Your task to perform on an android device: Go to calendar. Show me events next week Image 0: 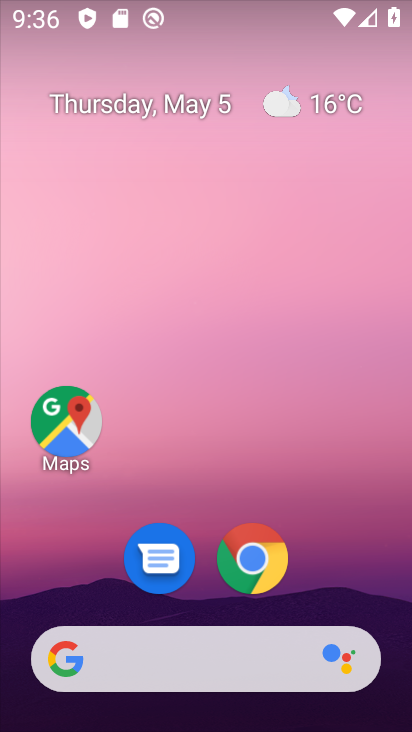
Step 0: drag from (364, 580) to (334, 15)
Your task to perform on an android device: Go to calendar. Show me events next week Image 1: 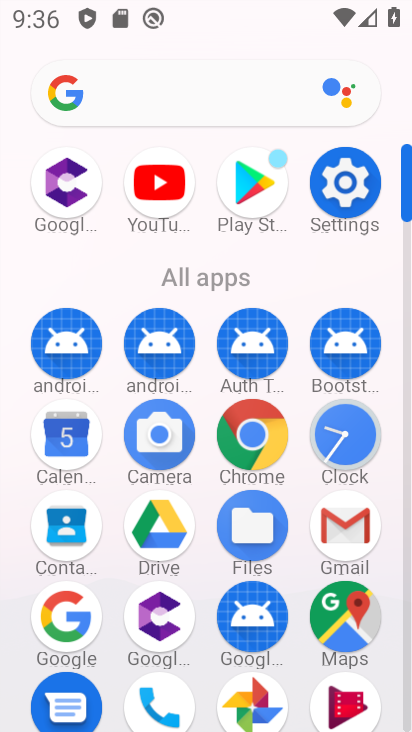
Step 1: click (80, 433)
Your task to perform on an android device: Go to calendar. Show me events next week Image 2: 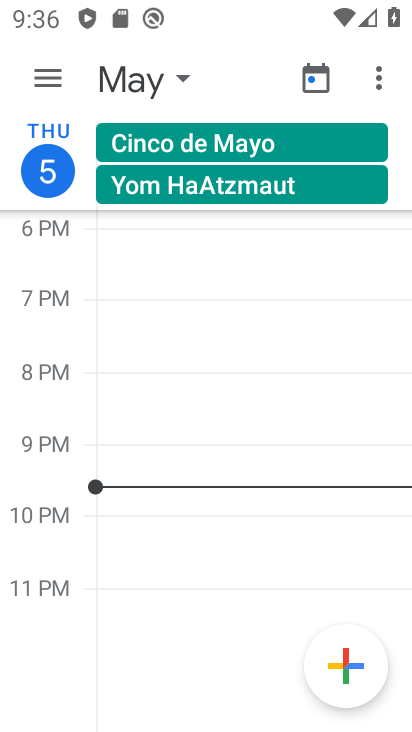
Step 2: click (40, 82)
Your task to perform on an android device: Go to calendar. Show me events next week Image 3: 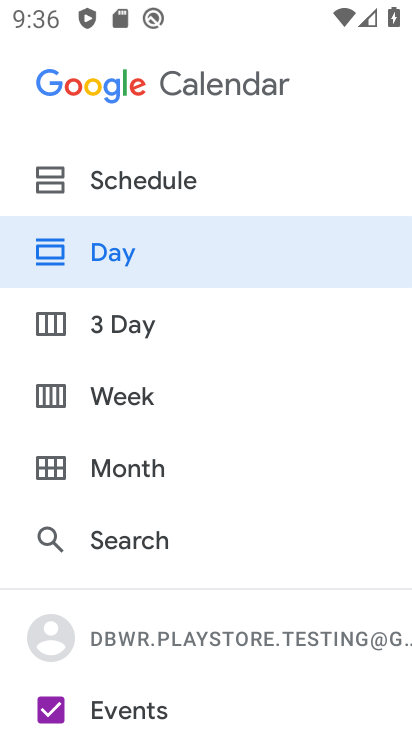
Step 3: drag from (164, 588) to (163, 248)
Your task to perform on an android device: Go to calendar. Show me events next week Image 4: 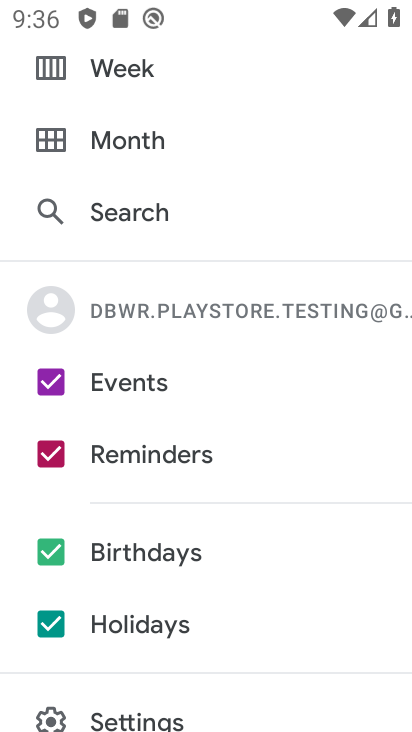
Step 4: click (49, 626)
Your task to perform on an android device: Go to calendar. Show me events next week Image 5: 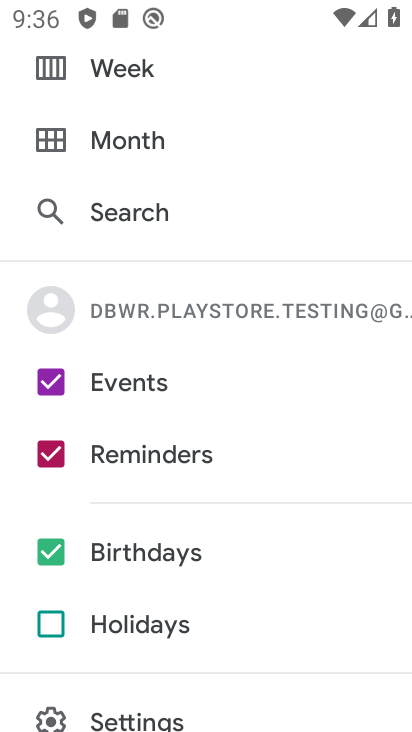
Step 5: click (55, 543)
Your task to perform on an android device: Go to calendar. Show me events next week Image 6: 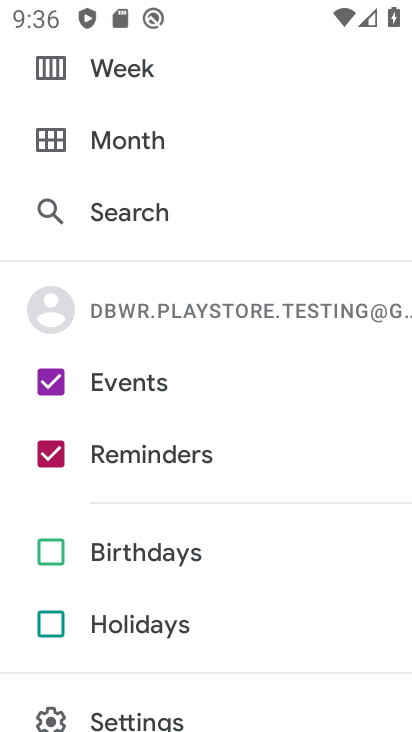
Step 6: click (53, 454)
Your task to perform on an android device: Go to calendar. Show me events next week Image 7: 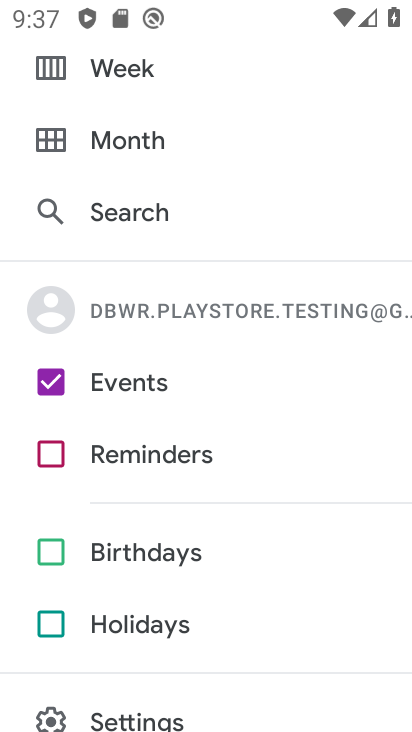
Step 7: click (137, 64)
Your task to perform on an android device: Go to calendar. Show me events next week Image 8: 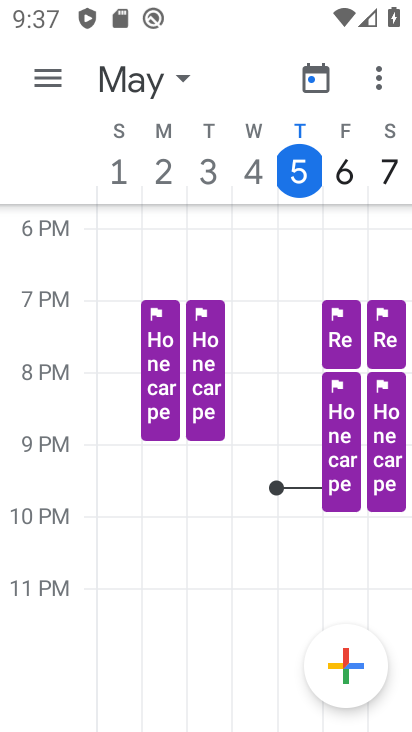
Step 8: click (178, 80)
Your task to perform on an android device: Go to calendar. Show me events next week Image 9: 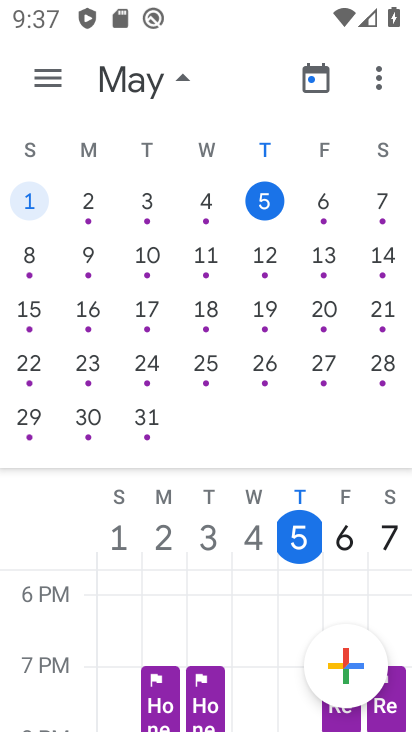
Step 9: click (207, 251)
Your task to perform on an android device: Go to calendar. Show me events next week Image 10: 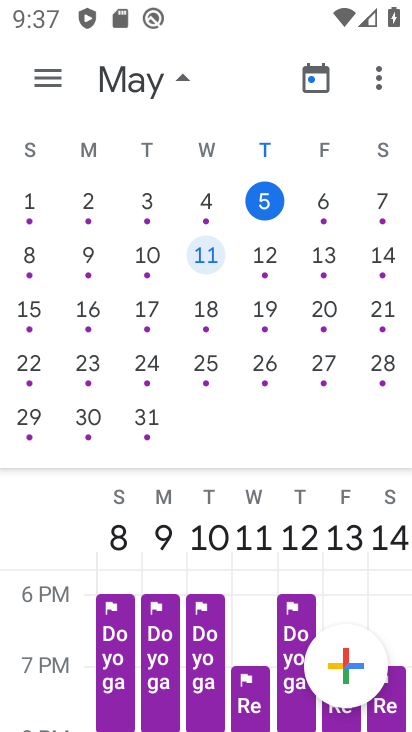
Step 10: click (174, 83)
Your task to perform on an android device: Go to calendar. Show me events next week Image 11: 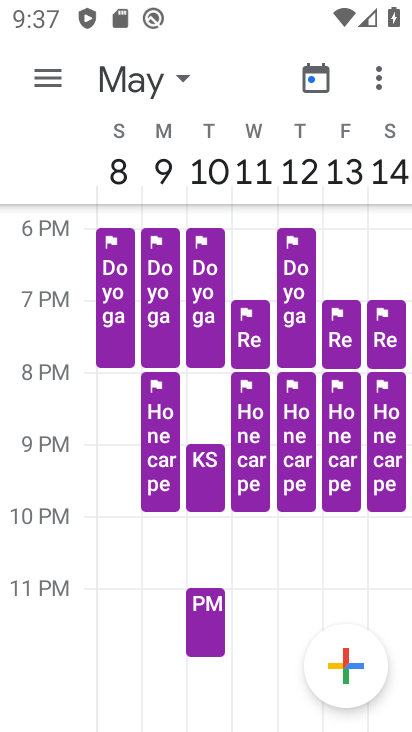
Step 11: task complete